Your task to perform on an android device: turn off translation in the chrome app Image 0: 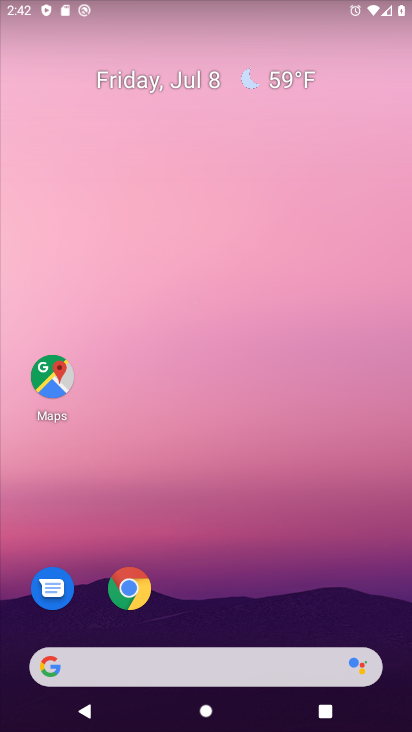
Step 0: drag from (204, 625) to (243, 14)
Your task to perform on an android device: turn off translation in the chrome app Image 1: 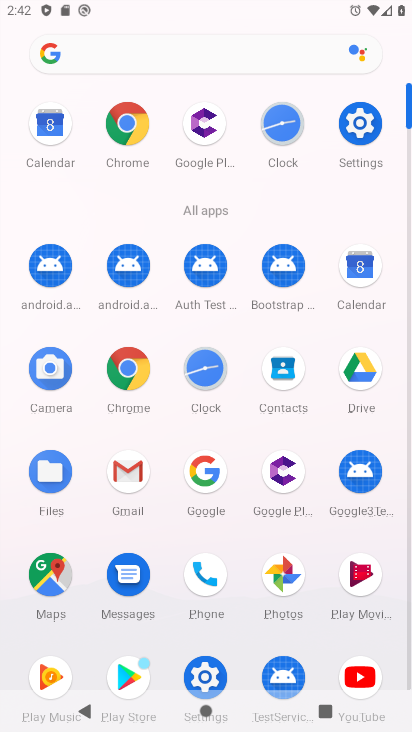
Step 1: click (131, 381)
Your task to perform on an android device: turn off translation in the chrome app Image 2: 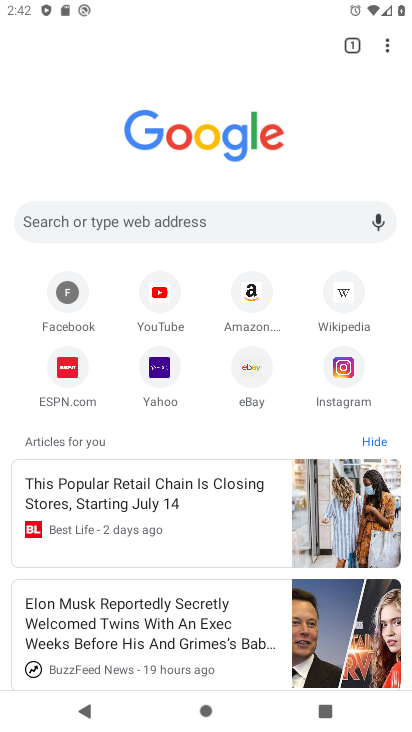
Step 2: click (388, 42)
Your task to perform on an android device: turn off translation in the chrome app Image 3: 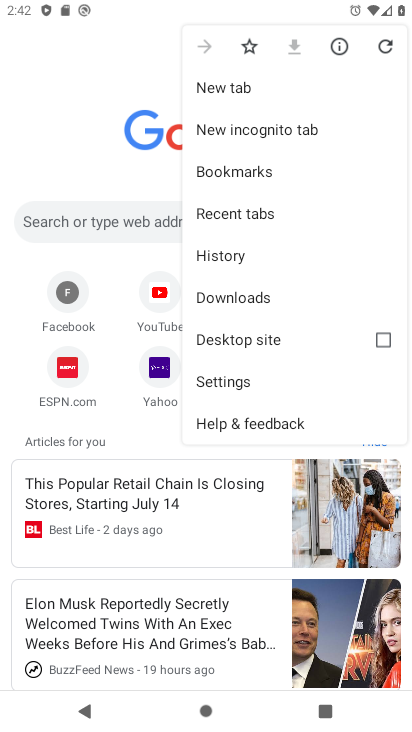
Step 3: click (240, 385)
Your task to perform on an android device: turn off translation in the chrome app Image 4: 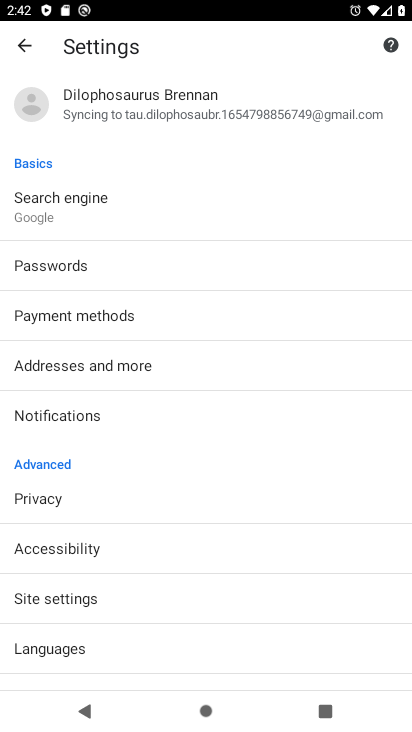
Step 4: drag from (150, 574) to (183, 389)
Your task to perform on an android device: turn off translation in the chrome app Image 5: 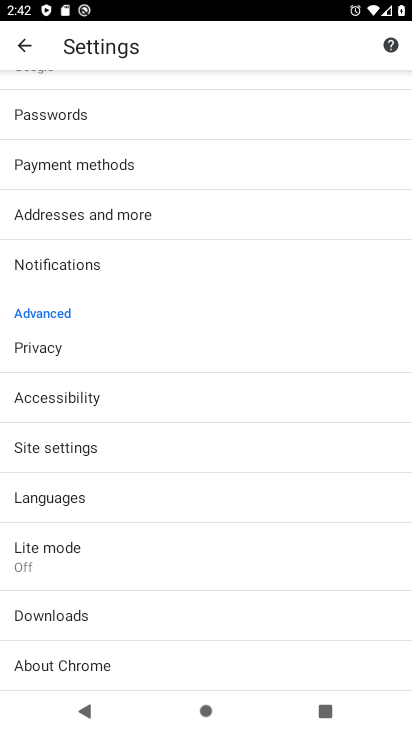
Step 5: click (96, 496)
Your task to perform on an android device: turn off translation in the chrome app Image 6: 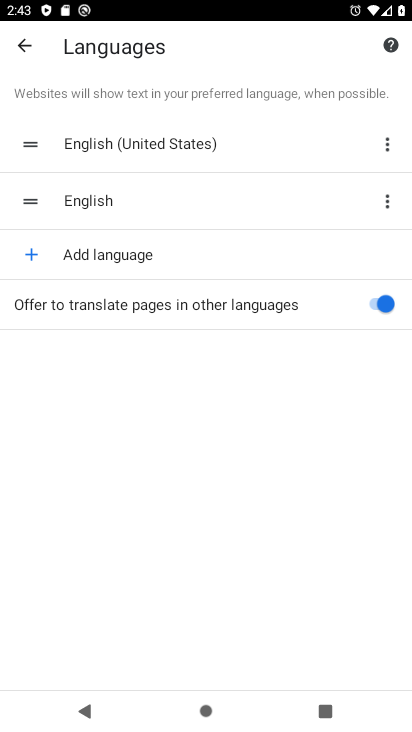
Step 6: click (357, 295)
Your task to perform on an android device: turn off translation in the chrome app Image 7: 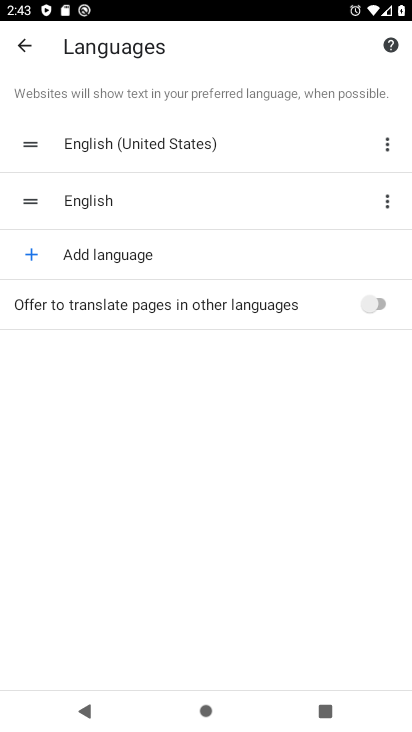
Step 7: task complete